Your task to perform on an android device: Go to privacy settings Image 0: 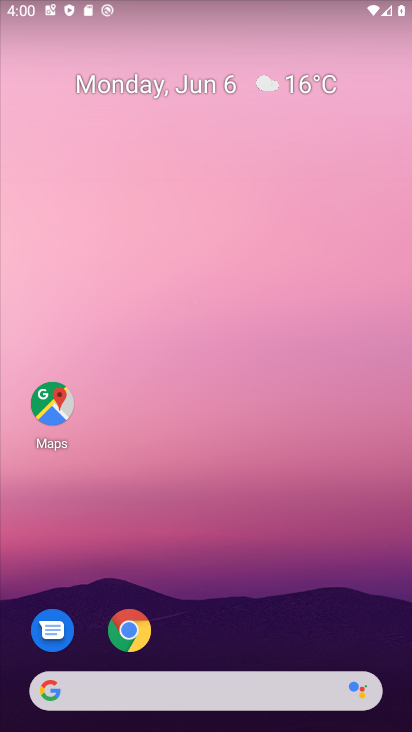
Step 0: drag from (316, 585) to (274, 4)
Your task to perform on an android device: Go to privacy settings Image 1: 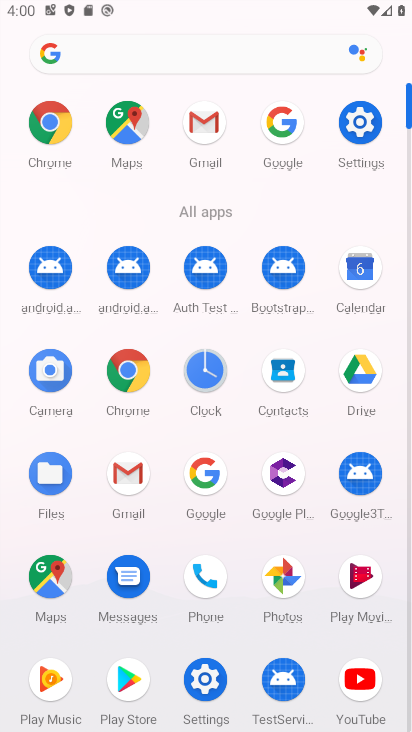
Step 1: click (361, 122)
Your task to perform on an android device: Go to privacy settings Image 2: 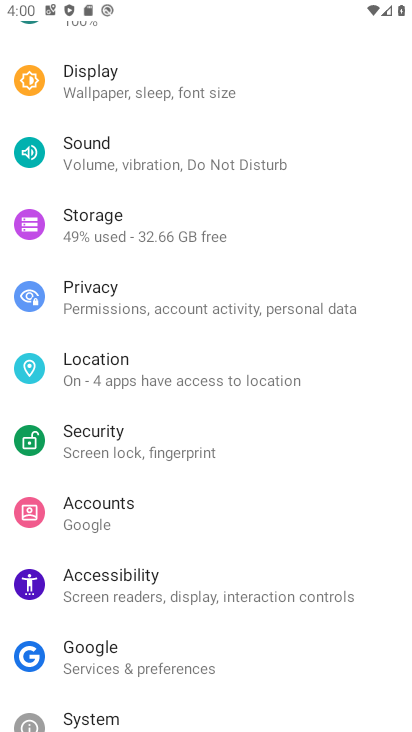
Step 2: click (144, 300)
Your task to perform on an android device: Go to privacy settings Image 3: 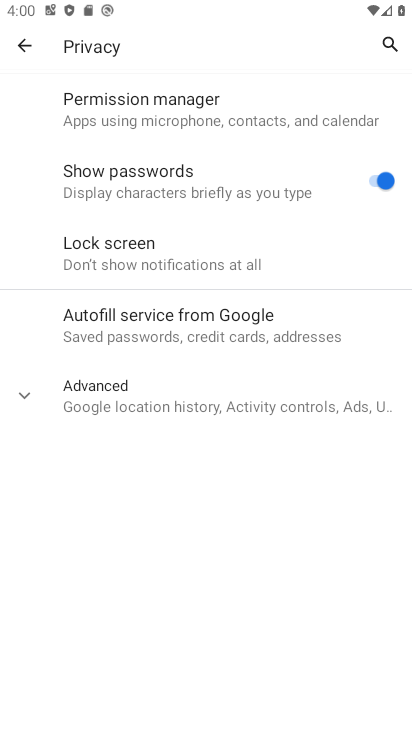
Step 3: task complete